Your task to perform on an android device: Play the last video I watched on Youtube Image 0: 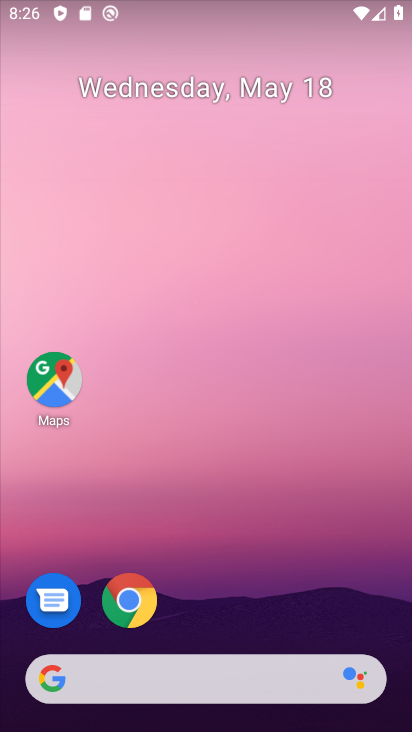
Step 0: drag from (2, 671) to (266, 151)
Your task to perform on an android device: Play the last video I watched on Youtube Image 1: 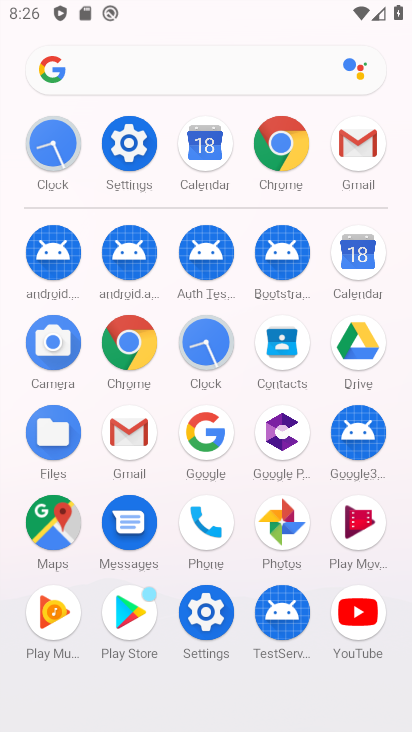
Step 1: click (365, 617)
Your task to perform on an android device: Play the last video I watched on Youtube Image 2: 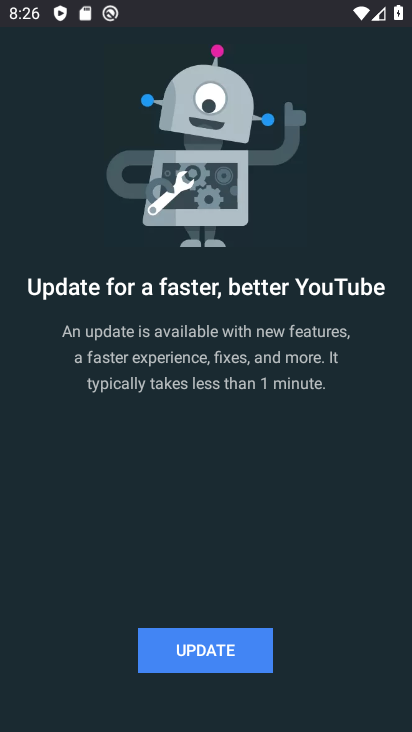
Step 2: task complete